Your task to perform on an android device: turn off priority inbox in the gmail app Image 0: 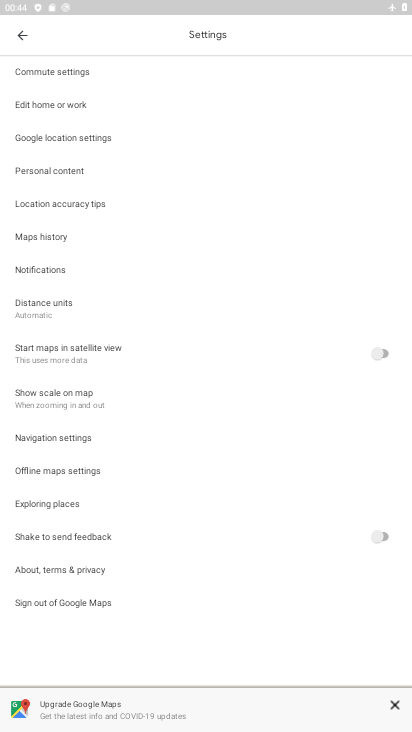
Step 0: press home button
Your task to perform on an android device: turn off priority inbox in the gmail app Image 1: 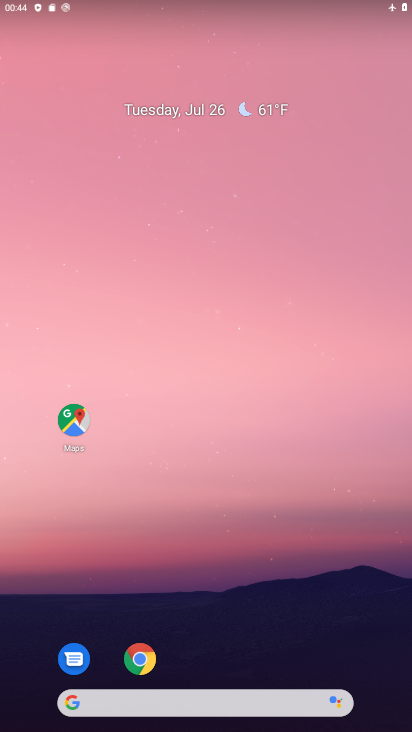
Step 1: drag from (280, 649) to (272, 127)
Your task to perform on an android device: turn off priority inbox in the gmail app Image 2: 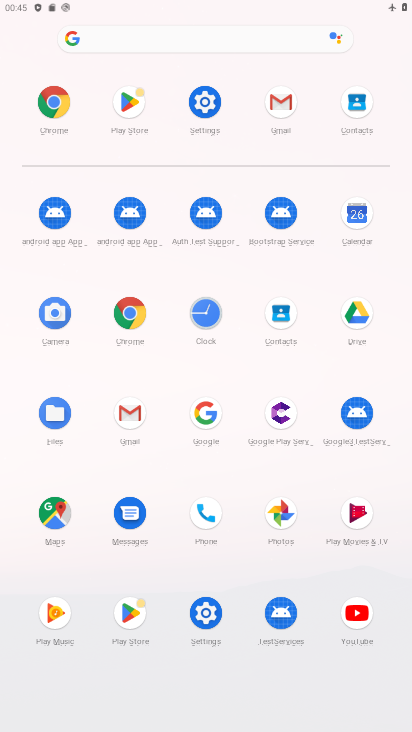
Step 2: click (279, 104)
Your task to perform on an android device: turn off priority inbox in the gmail app Image 3: 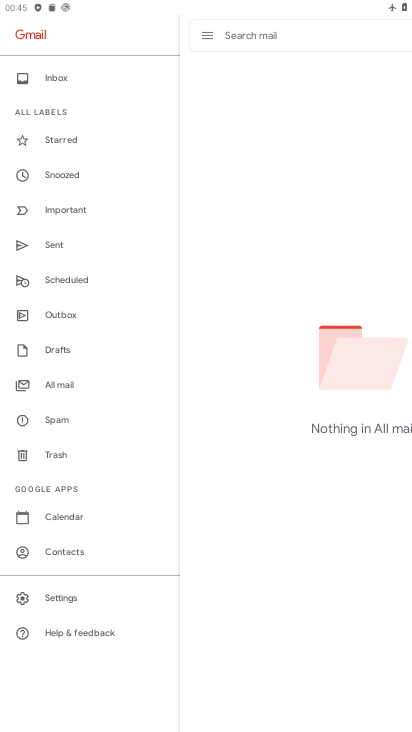
Step 3: click (58, 591)
Your task to perform on an android device: turn off priority inbox in the gmail app Image 4: 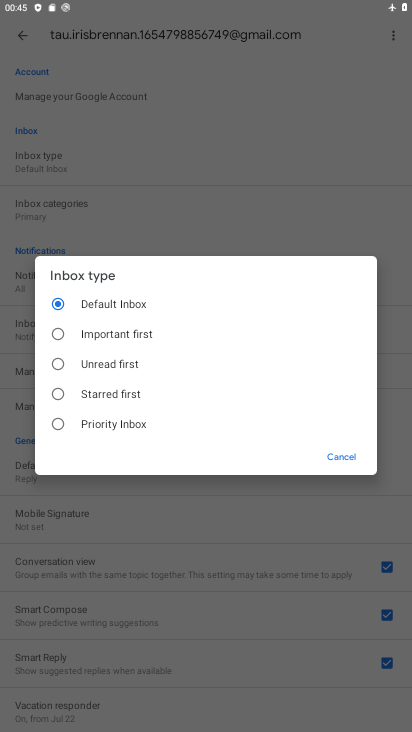
Step 4: task complete